Your task to perform on an android device: When is my next meeting? Image 0: 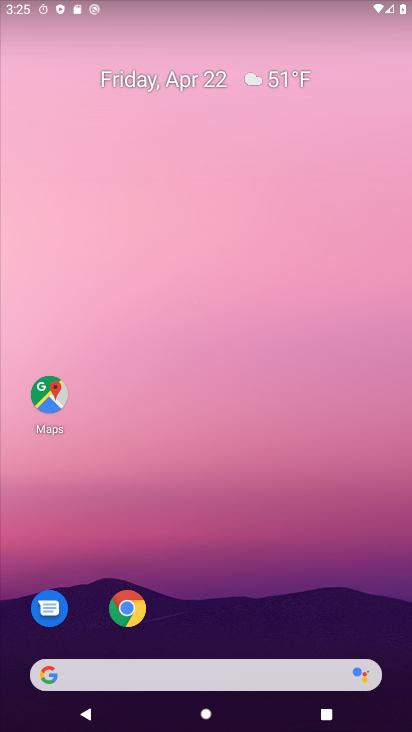
Step 0: drag from (241, 456) to (232, 51)
Your task to perform on an android device: When is my next meeting? Image 1: 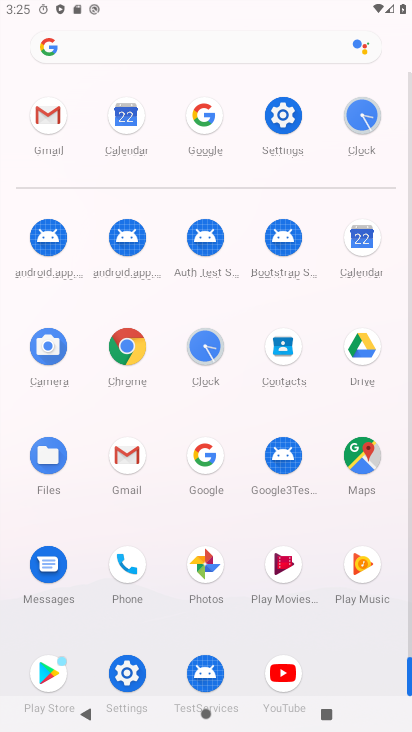
Step 1: click (125, 118)
Your task to perform on an android device: When is my next meeting? Image 2: 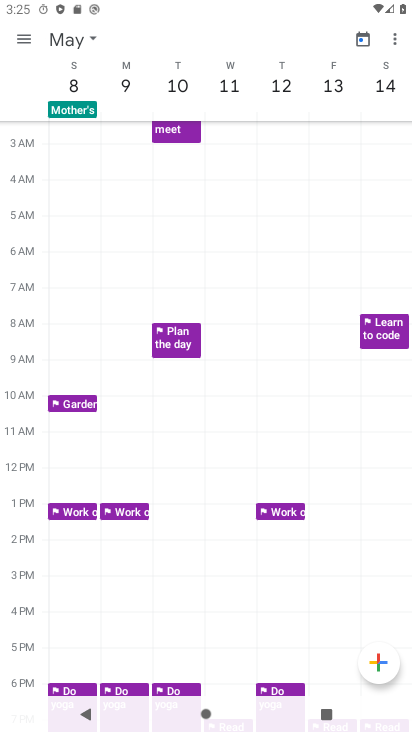
Step 2: click (21, 34)
Your task to perform on an android device: When is my next meeting? Image 3: 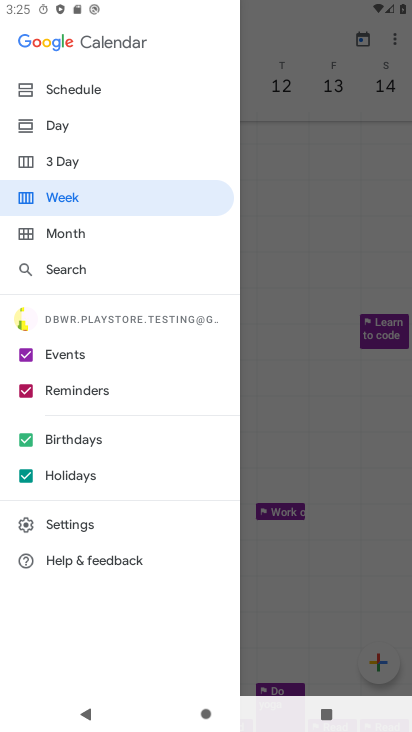
Step 3: click (68, 92)
Your task to perform on an android device: When is my next meeting? Image 4: 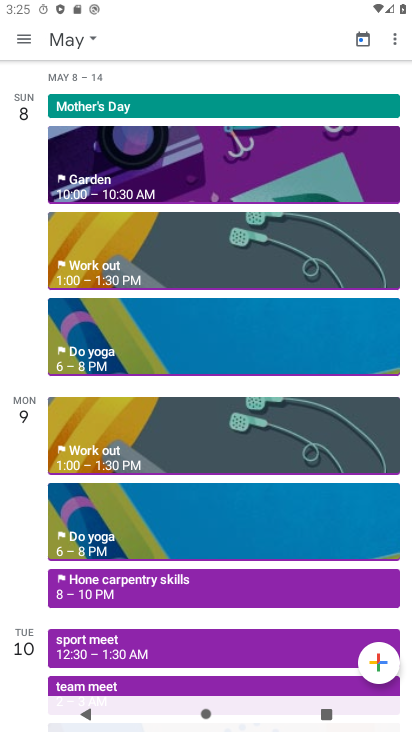
Step 4: click (91, 33)
Your task to perform on an android device: When is my next meeting? Image 5: 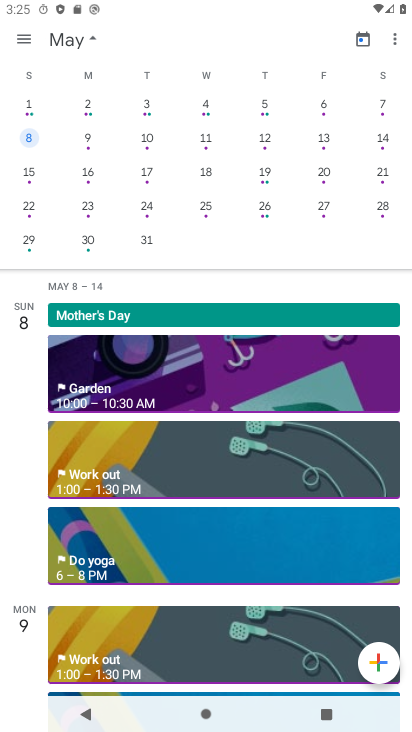
Step 5: drag from (137, 162) to (410, 153)
Your task to perform on an android device: When is my next meeting? Image 6: 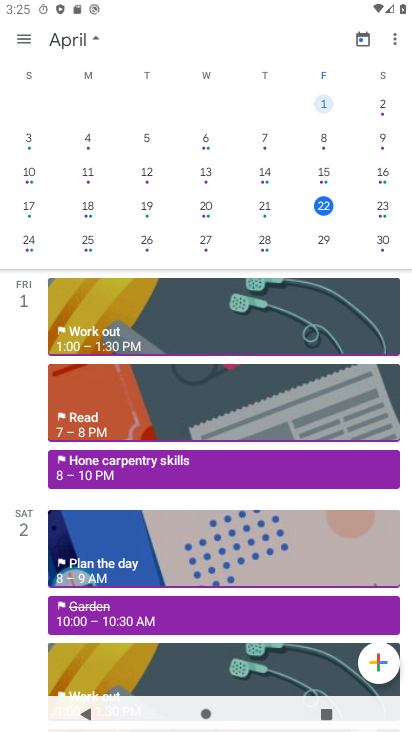
Step 6: click (320, 208)
Your task to perform on an android device: When is my next meeting? Image 7: 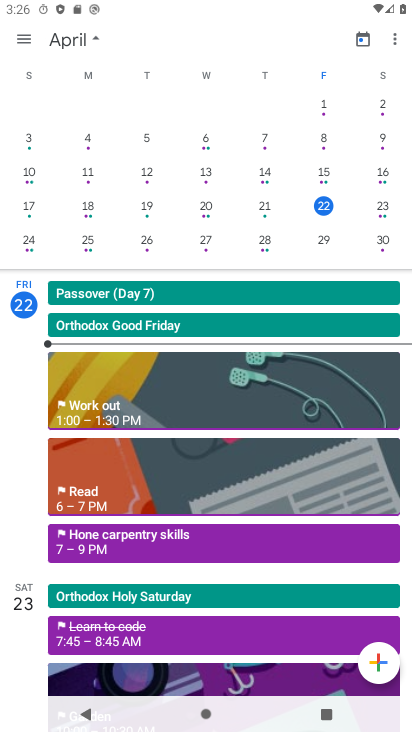
Step 7: task complete